Your task to perform on an android device: Go to notification settings Image 0: 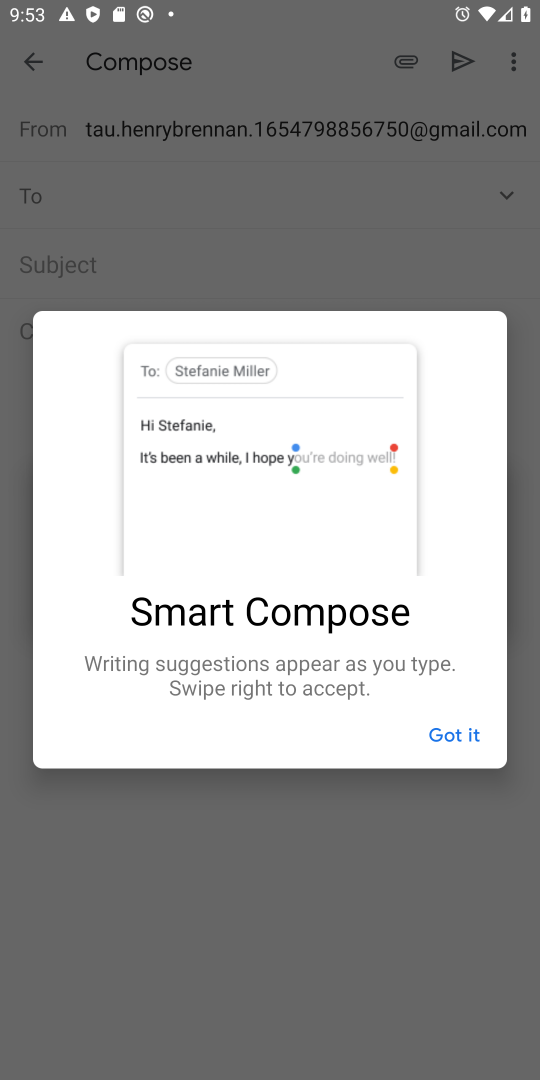
Step 0: press home button
Your task to perform on an android device: Go to notification settings Image 1: 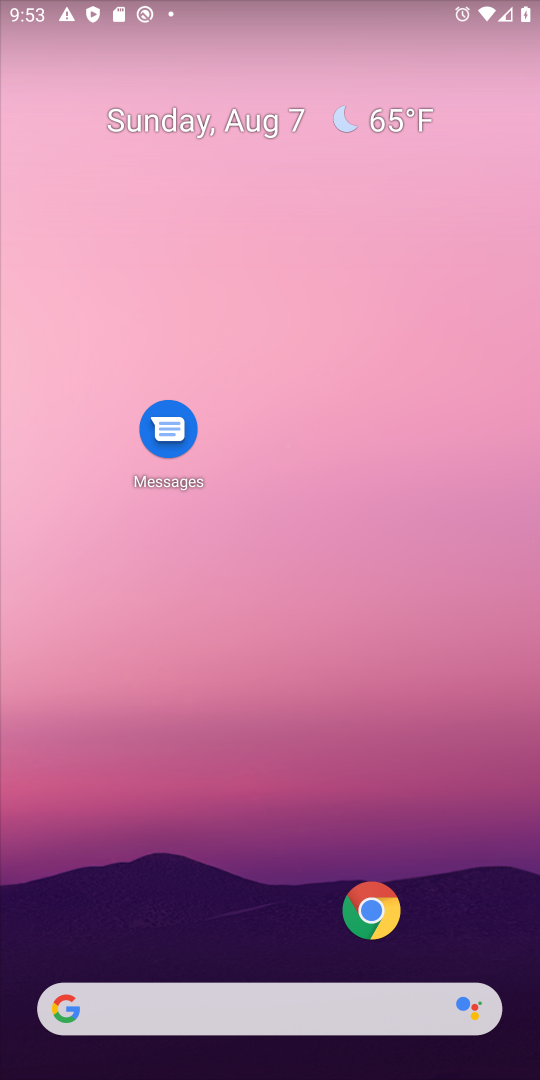
Step 1: drag from (271, 956) to (309, 472)
Your task to perform on an android device: Go to notification settings Image 2: 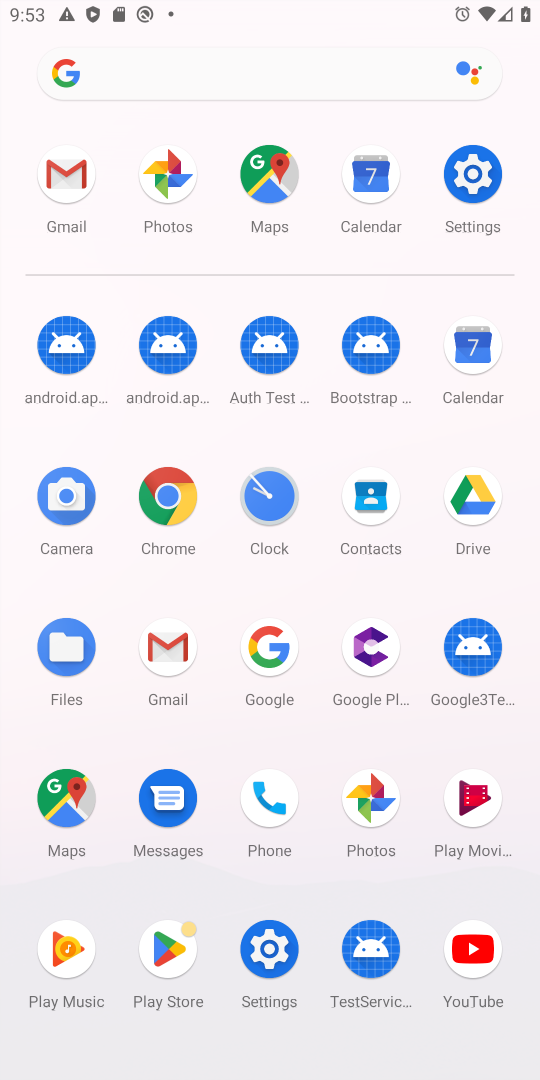
Step 2: click (488, 188)
Your task to perform on an android device: Go to notification settings Image 3: 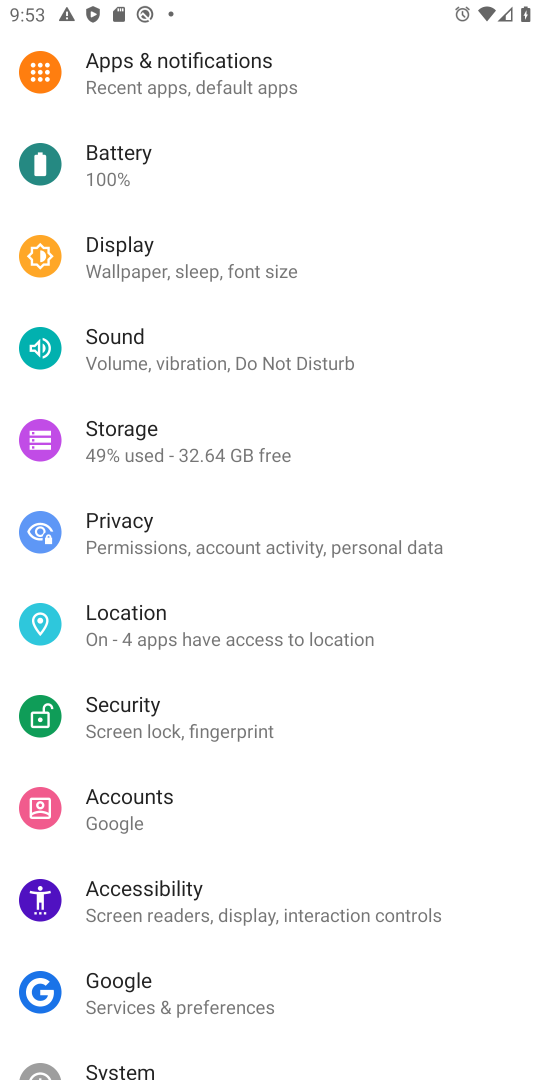
Step 3: drag from (314, 227) to (345, 790)
Your task to perform on an android device: Go to notification settings Image 4: 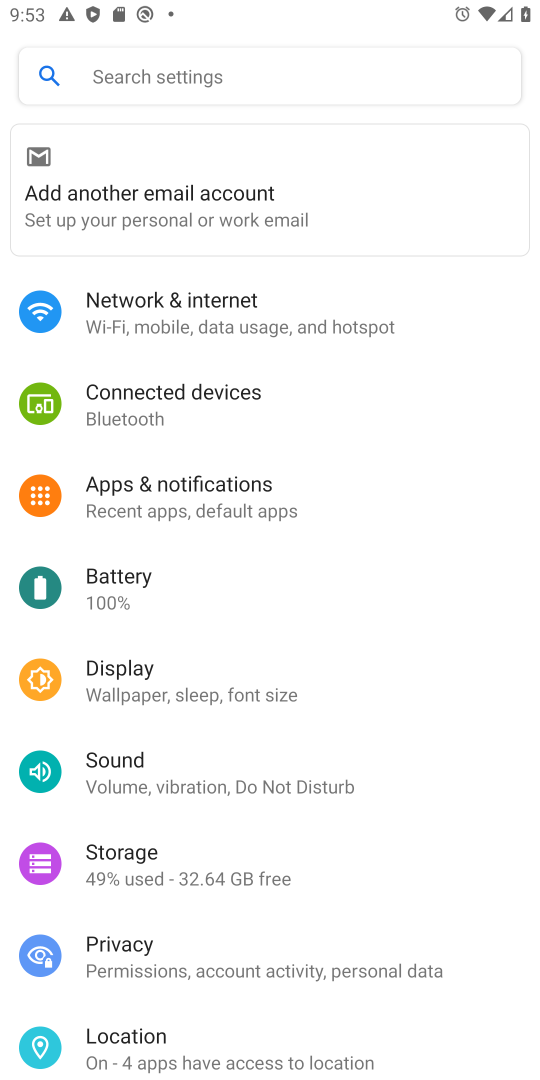
Step 4: click (157, 494)
Your task to perform on an android device: Go to notification settings Image 5: 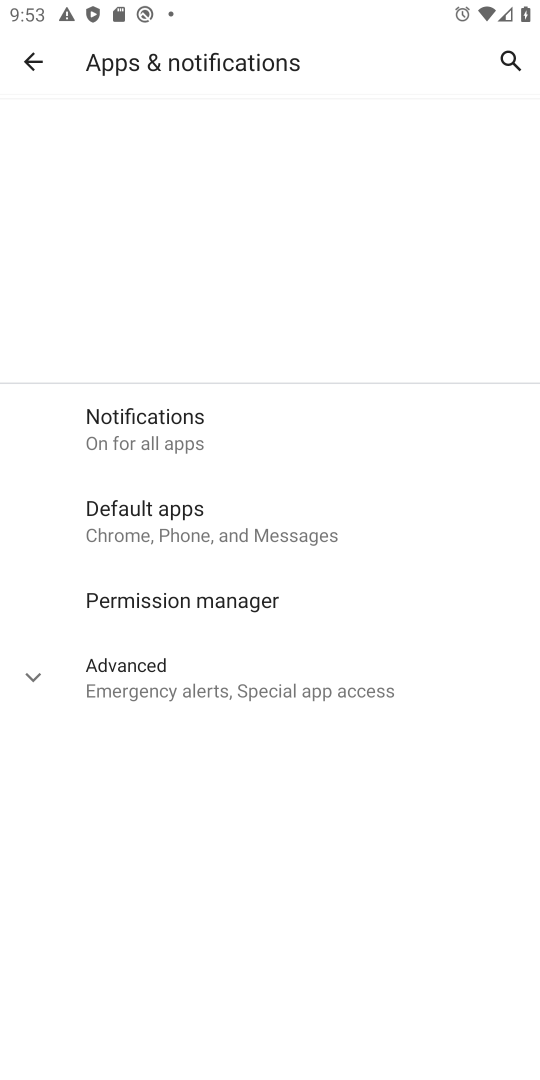
Step 5: click (201, 658)
Your task to perform on an android device: Go to notification settings Image 6: 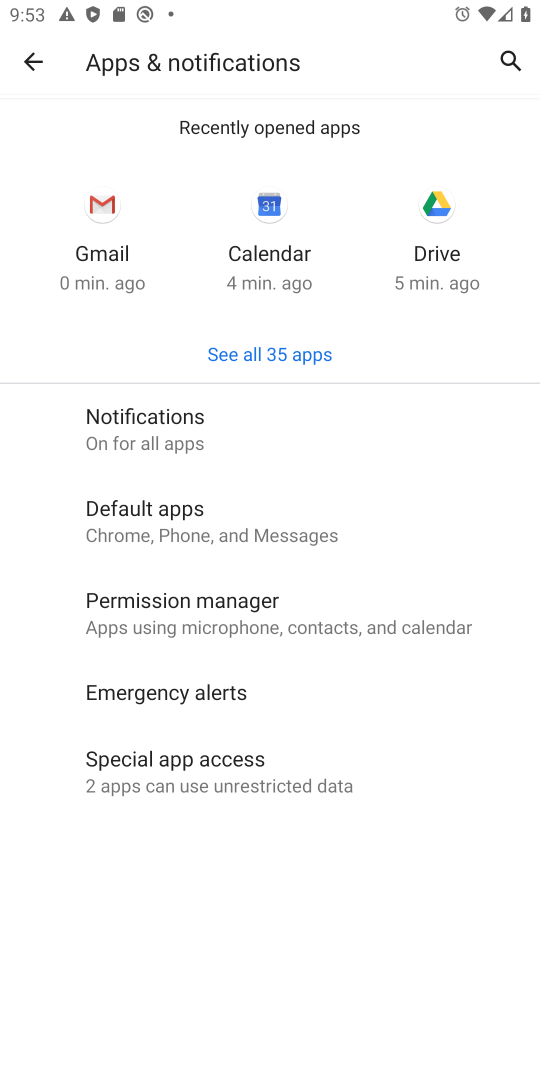
Step 6: task complete